Your task to perform on an android device: Show the shopping cart on costco. Search for usb-c to usb-a on costco, select the first entry, add it to the cart, then select checkout. Image 0: 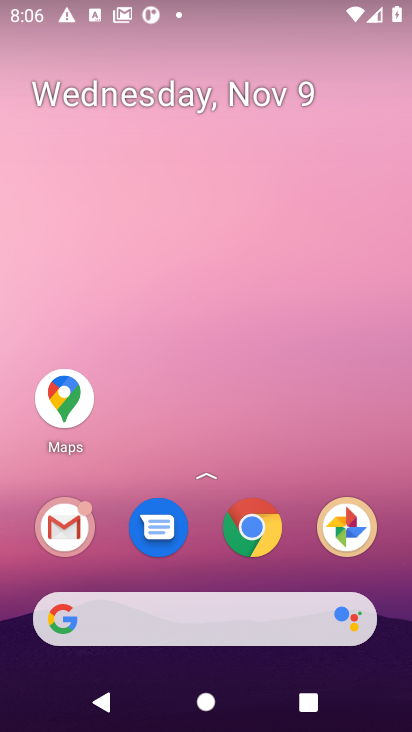
Step 0: click (252, 534)
Your task to perform on an android device: Show the shopping cart on costco. Search for usb-c to usb-a on costco, select the first entry, add it to the cart, then select checkout. Image 1: 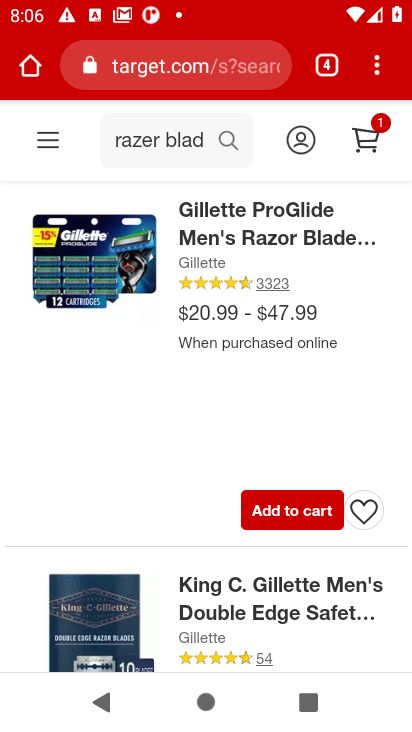
Step 1: click (165, 75)
Your task to perform on an android device: Show the shopping cart on costco. Search for usb-c to usb-a on costco, select the first entry, add it to the cart, then select checkout. Image 2: 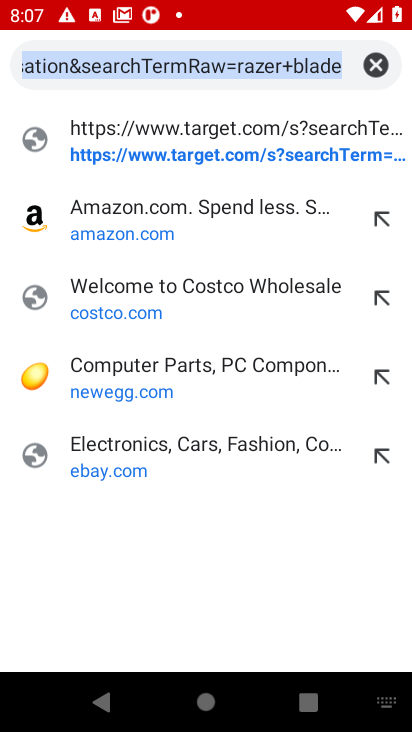
Step 2: click (120, 316)
Your task to perform on an android device: Show the shopping cart on costco. Search for usb-c to usb-a on costco, select the first entry, add it to the cart, then select checkout. Image 3: 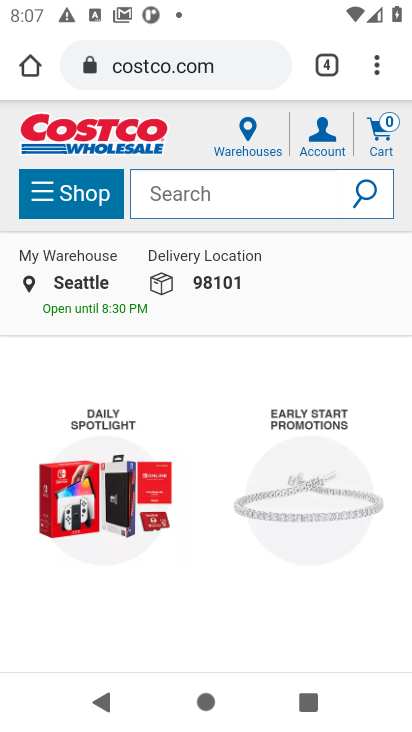
Step 3: click (380, 141)
Your task to perform on an android device: Show the shopping cart on costco. Search for usb-c to usb-a on costco, select the first entry, add it to the cart, then select checkout. Image 4: 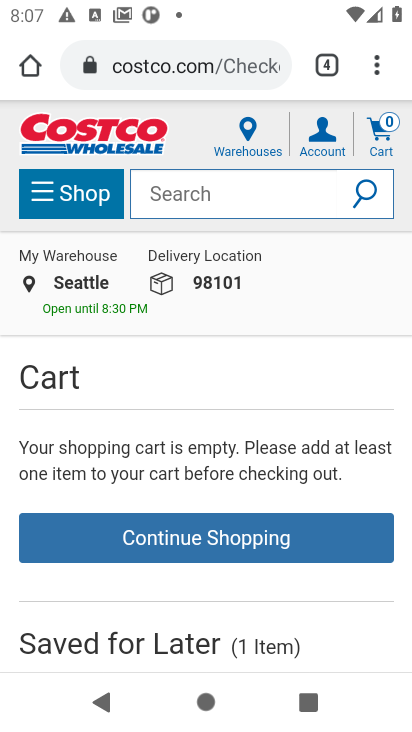
Step 4: click (194, 199)
Your task to perform on an android device: Show the shopping cart on costco. Search for usb-c to usb-a on costco, select the first entry, add it to the cart, then select checkout. Image 5: 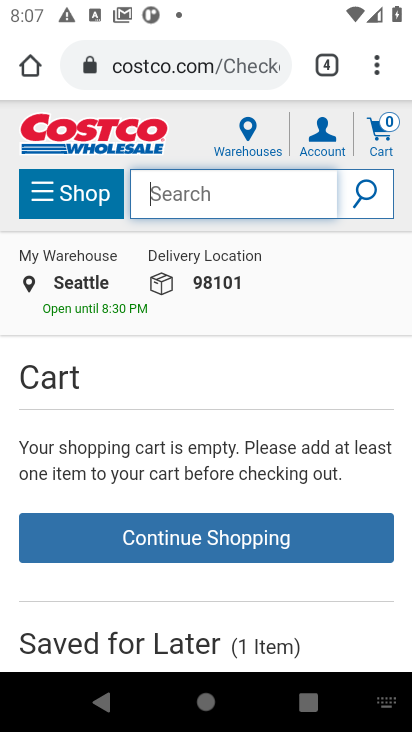
Step 5: type "usb-c to usb-a"
Your task to perform on an android device: Show the shopping cart on costco. Search for usb-c to usb-a on costco, select the first entry, add it to the cart, then select checkout. Image 6: 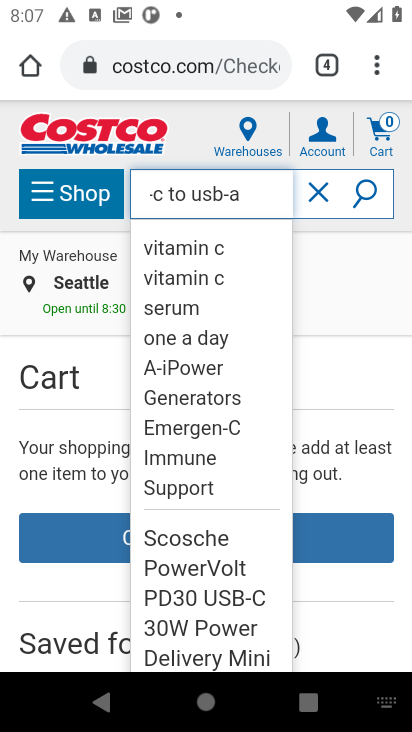
Step 6: click (358, 201)
Your task to perform on an android device: Show the shopping cart on costco. Search for usb-c to usb-a on costco, select the first entry, add it to the cart, then select checkout. Image 7: 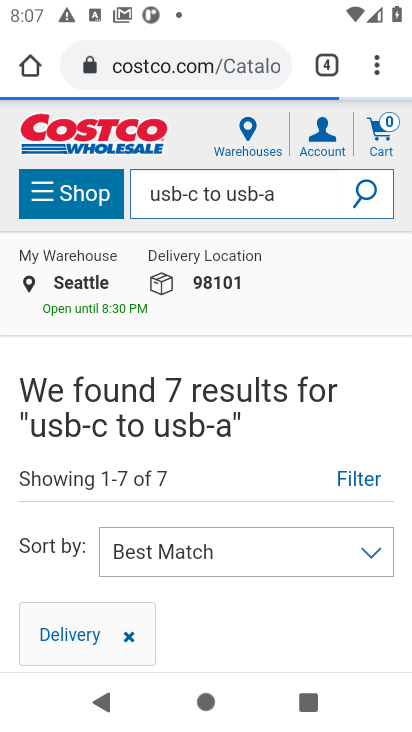
Step 7: drag from (270, 469) to (275, 269)
Your task to perform on an android device: Show the shopping cart on costco. Search for usb-c to usb-a on costco, select the first entry, add it to the cart, then select checkout. Image 8: 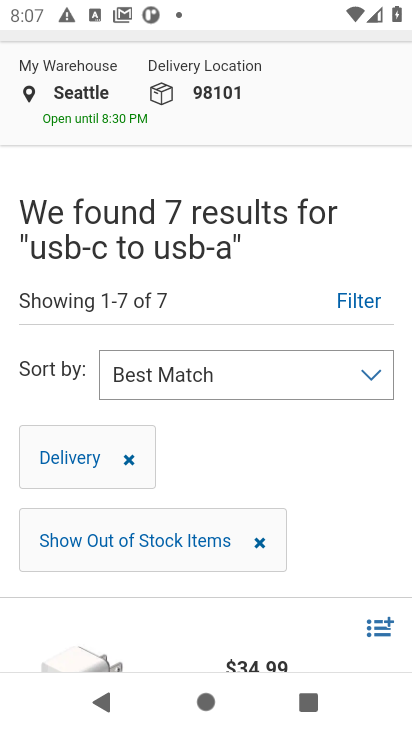
Step 8: drag from (257, 469) to (268, 225)
Your task to perform on an android device: Show the shopping cart on costco. Search for usb-c to usb-a on costco, select the first entry, add it to the cart, then select checkout. Image 9: 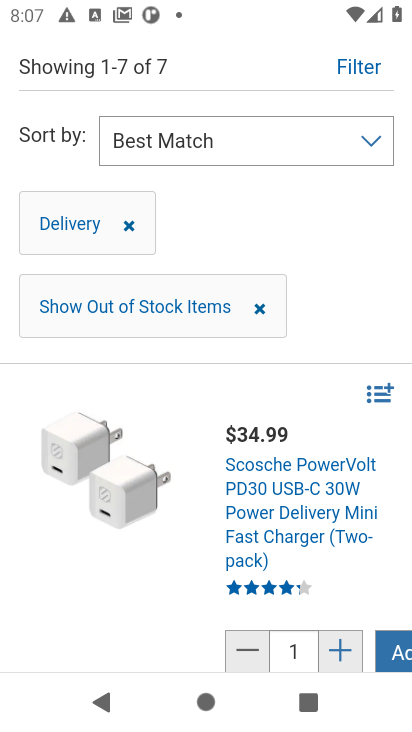
Step 9: drag from (172, 541) to (180, 378)
Your task to perform on an android device: Show the shopping cart on costco. Search for usb-c to usb-a on costco, select the first entry, add it to the cart, then select checkout. Image 10: 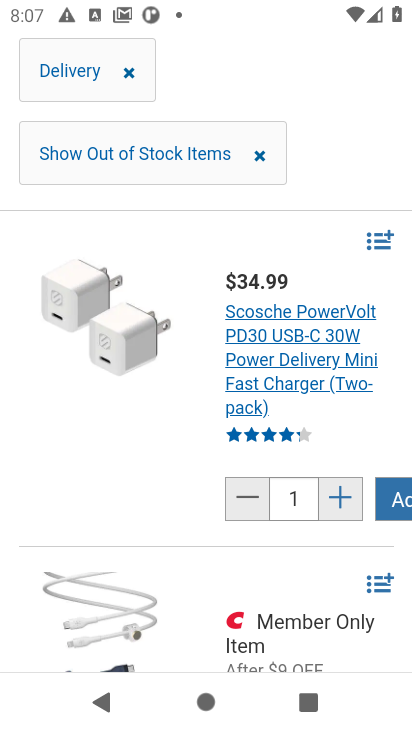
Step 10: drag from (157, 497) to (179, 323)
Your task to perform on an android device: Show the shopping cart on costco. Search for usb-c to usb-a on costco, select the first entry, add it to the cart, then select checkout. Image 11: 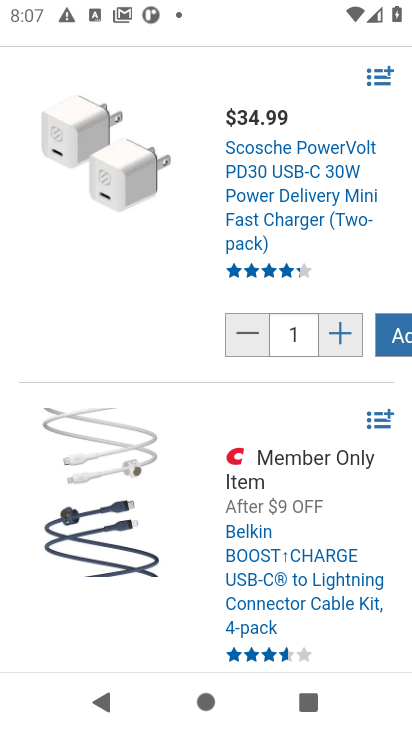
Step 11: click (185, 184)
Your task to perform on an android device: Show the shopping cart on costco. Search for usb-c to usb-a on costco, select the first entry, add it to the cart, then select checkout. Image 12: 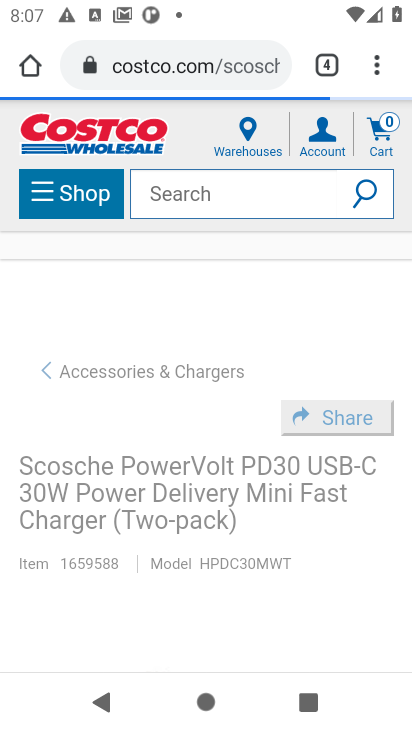
Step 12: task complete